Your task to perform on an android device: delete a single message in the gmail app Image 0: 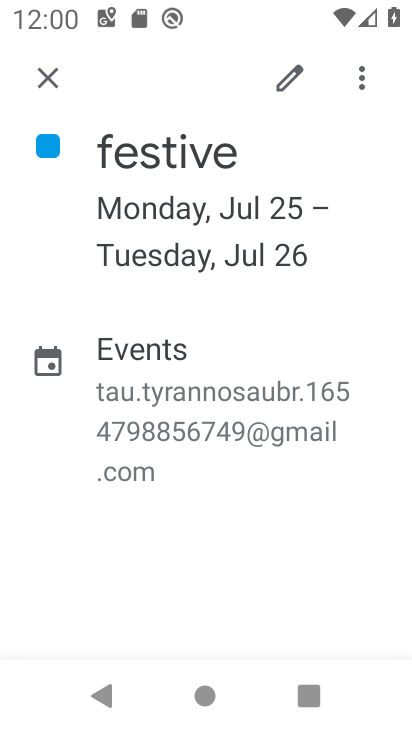
Step 0: press home button
Your task to perform on an android device: delete a single message in the gmail app Image 1: 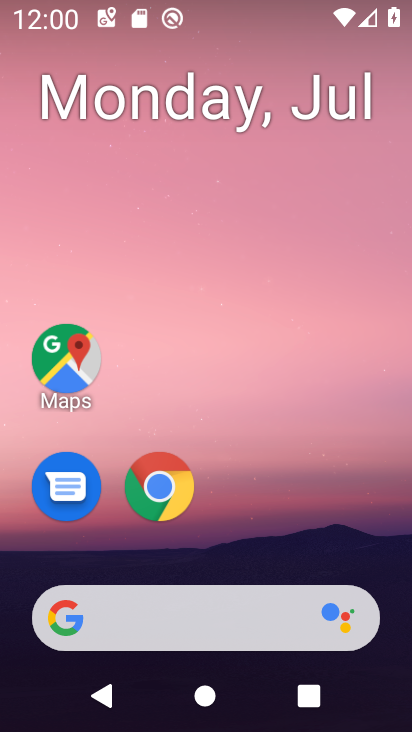
Step 1: drag from (364, 556) to (355, 74)
Your task to perform on an android device: delete a single message in the gmail app Image 2: 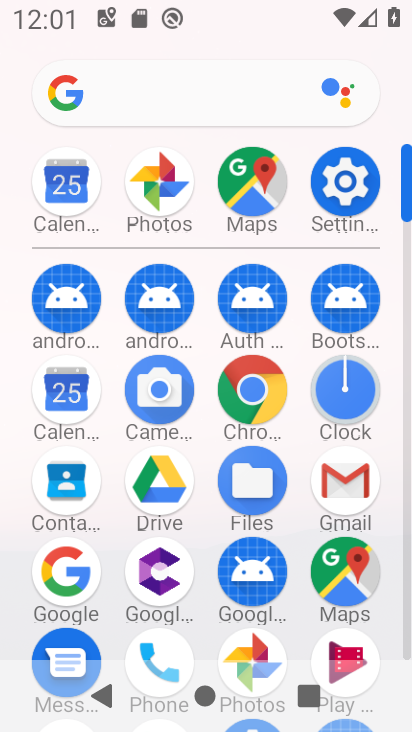
Step 2: click (348, 490)
Your task to perform on an android device: delete a single message in the gmail app Image 3: 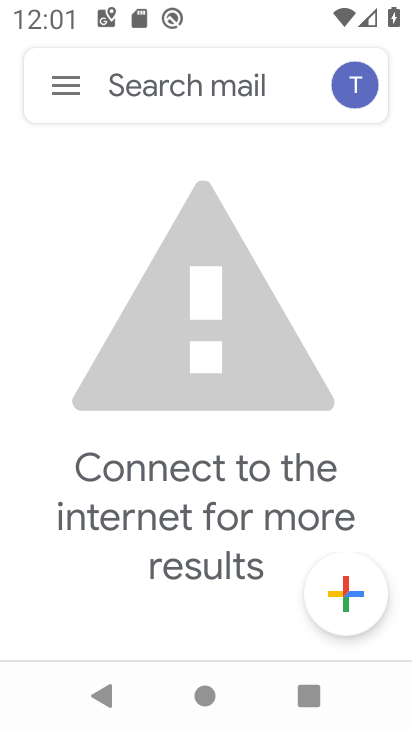
Step 3: click (67, 88)
Your task to perform on an android device: delete a single message in the gmail app Image 4: 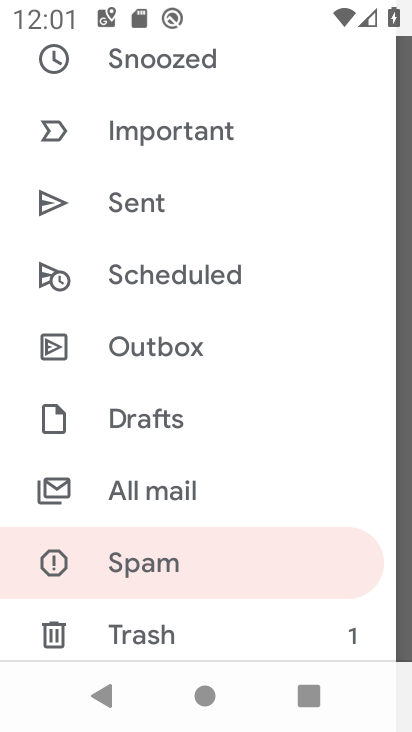
Step 4: click (251, 497)
Your task to perform on an android device: delete a single message in the gmail app Image 5: 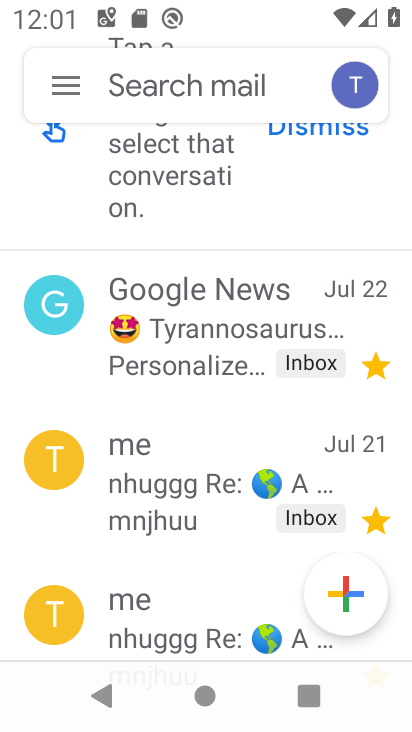
Step 5: click (238, 335)
Your task to perform on an android device: delete a single message in the gmail app Image 6: 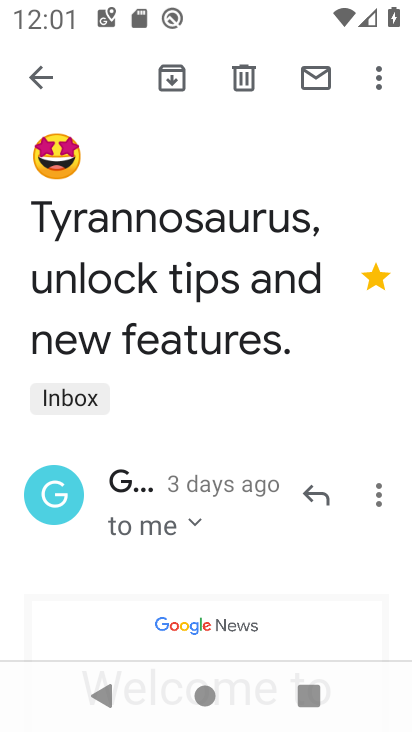
Step 6: click (249, 74)
Your task to perform on an android device: delete a single message in the gmail app Image 7: 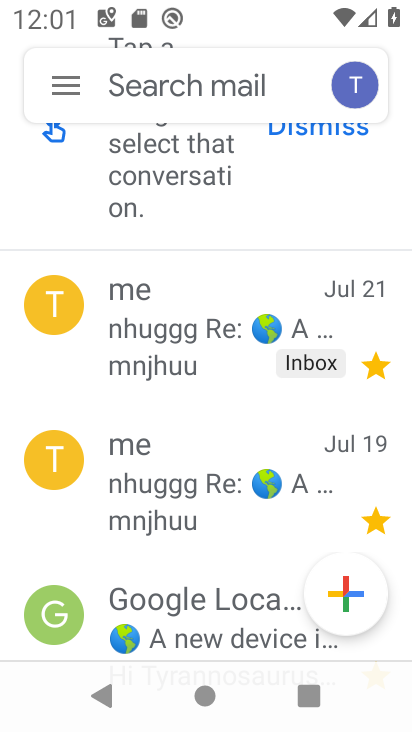
Step 7: task complete